Your task to perform on an android device: Open Chrome and go to the settings page Image 0: 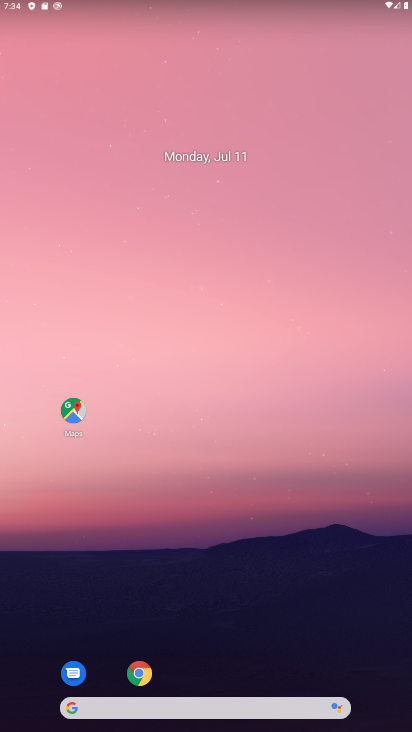
Step 0: click (137, 678)
Your task to perform on an android device: Open Chrome and go to the settings page Image 1: 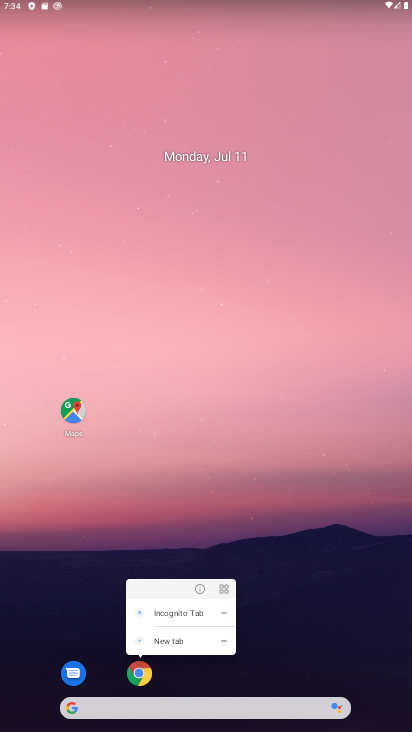
Step 1: click (138, 679)
Your task to perform on an android device: Open Chrome and go to the settings page Image 2: 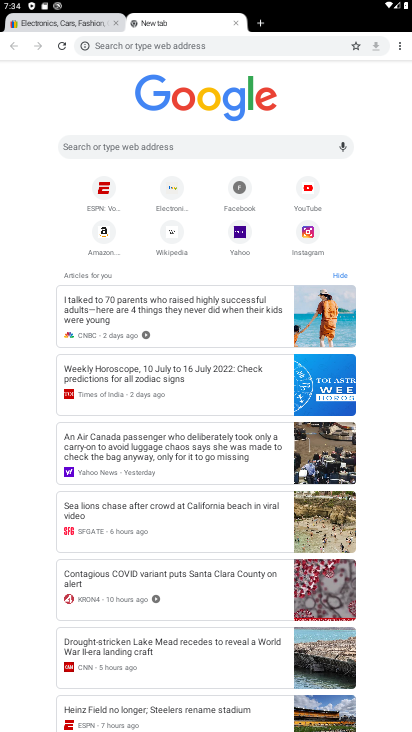
Step 2: click (398, 51)
Your task to perform on an android device: Open Chrome and go to the settings page Image 3: 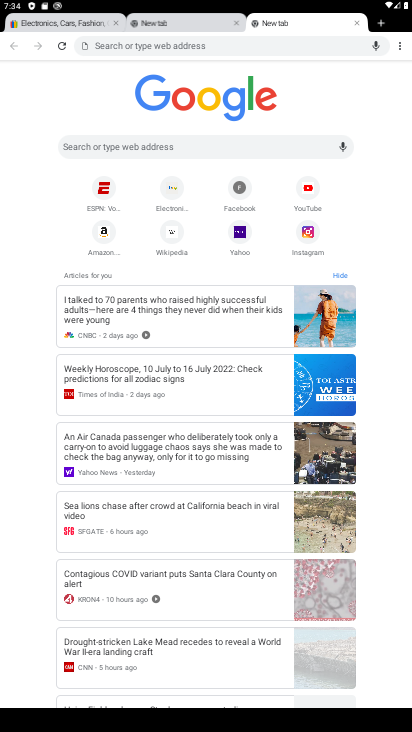
Step 3: click (398, 51)
Your task to perform on an android device: Open Chrome and go to the settings page Image 4: 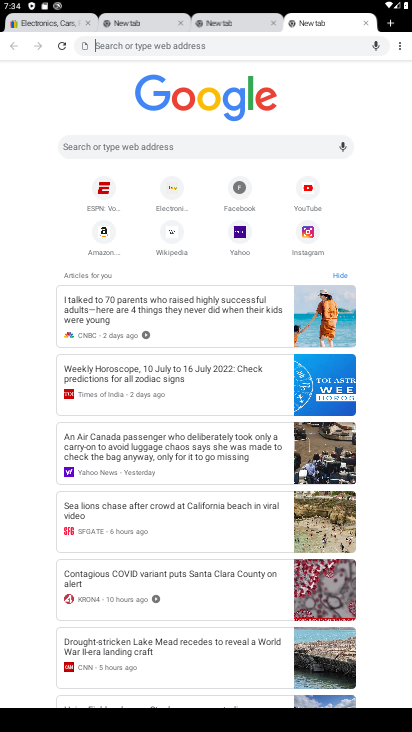
Step 4: click (398, 46)
Your task to perform on an android device: Open Chrome and go to the settings page Image 5: 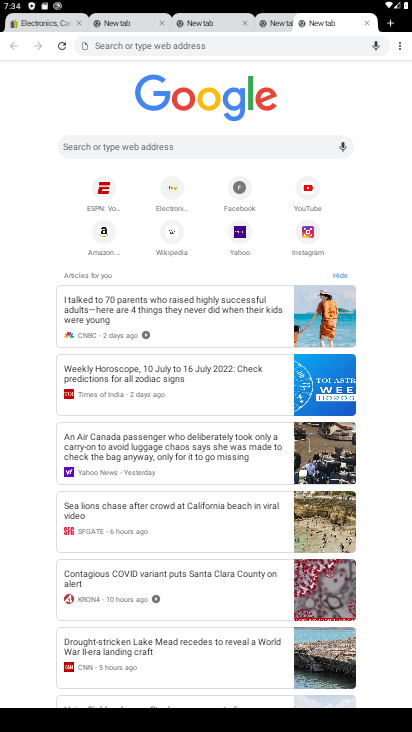
Step 5: click (400, 47)
Your task to perform on an android device: Open Chrome and go to the settings page Image 6: 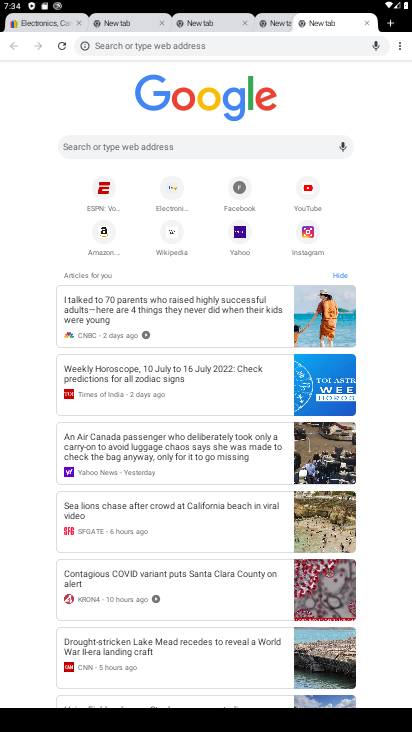
Step 6: click (401, 47)
Your task to perform on an android device: Open Chrome and go to the settings page Image 7: 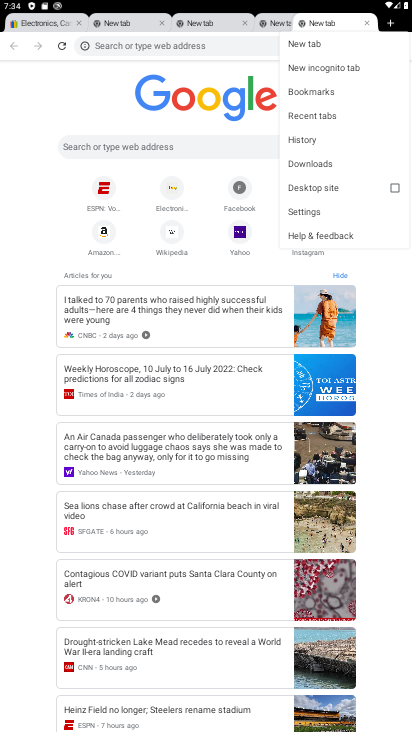
Step 7: click (308, 214)
Your task to perform on an android device: Open Chrome and go to the settings page Image 8: 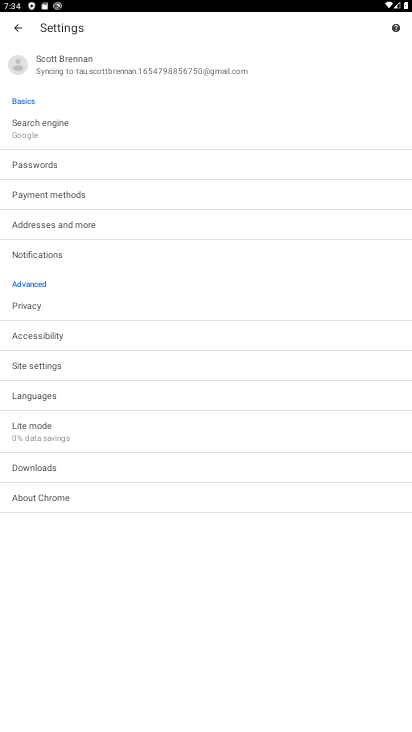
Step 8: task complete